Your task to perform on an android device: turn off notifications in google photos Image 0: 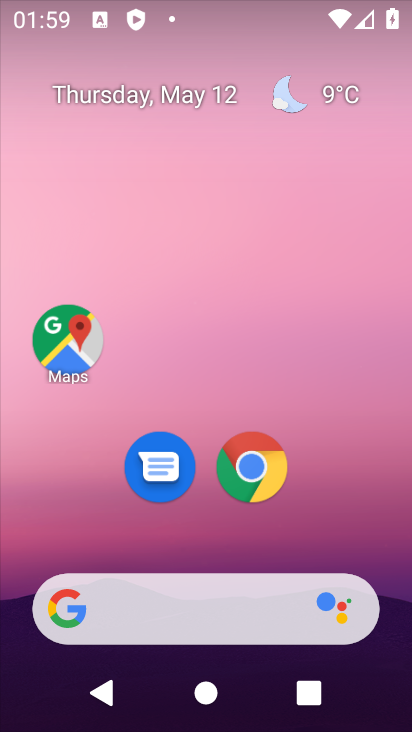
Step 0: drag from (316, 571) to (326, 189)
Your task to perform on an android device: turn off notifications in google photos Image 1: 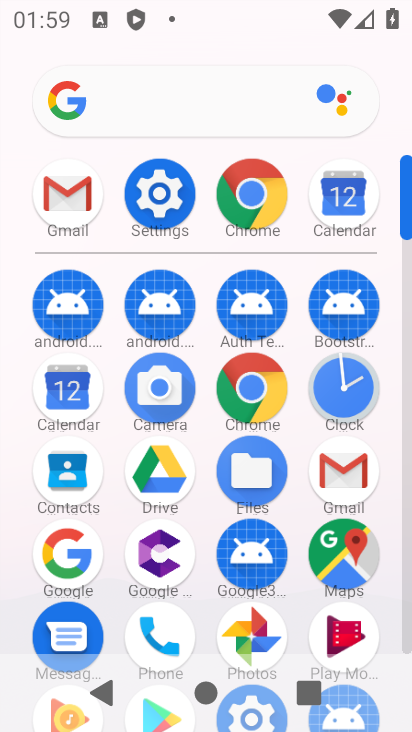
Step 1: click (250, 605)
Your task to perform on an android device: turn off notifications in google photos Image 2: 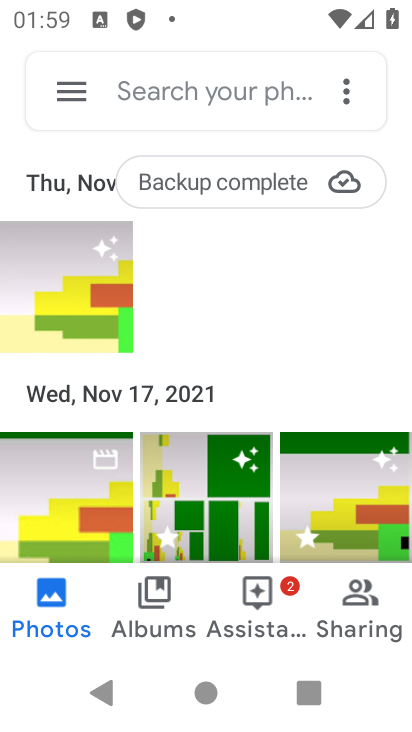
Step 2: click (68, 84)
Your task to perform on an android device: turn off notifications in google photos Image 3: 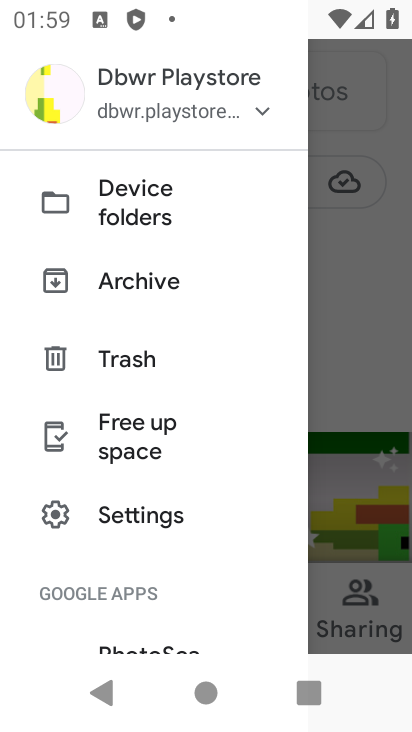
Step 3: click (148, 505)
Your task to perform on an android device: turn off notifications in google photos Image 4: 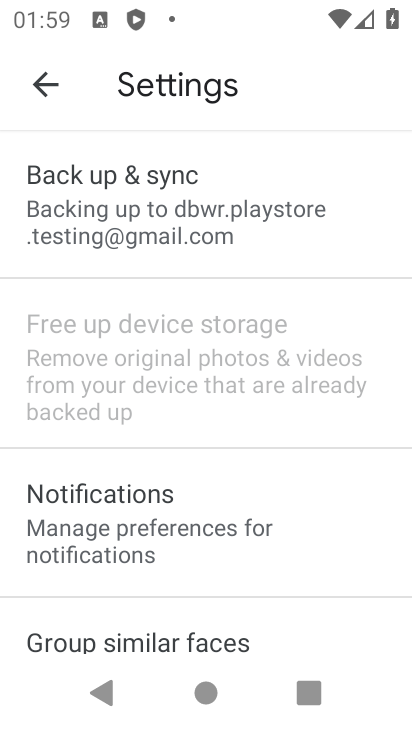
Step 4: click (156, 499)
Your task to perform on an android device: turn off notifications in google photos Image 5: 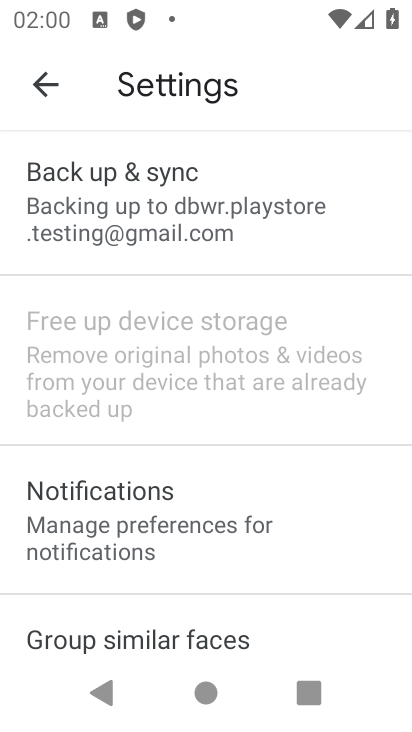
Step 5: click (156, 497)
Your task to perform on an android device: turn off notifications in google photos Image 6: 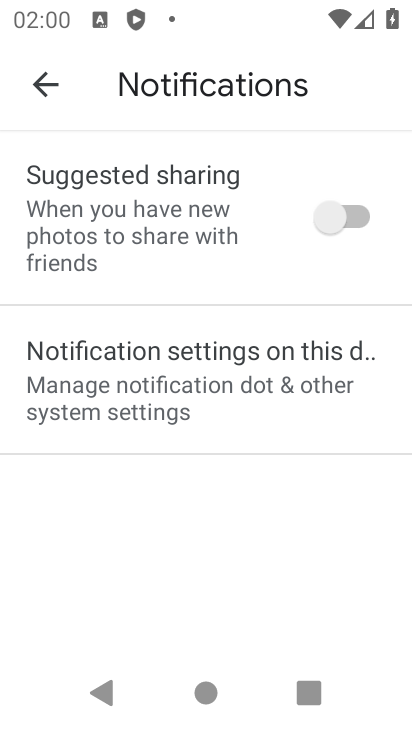
Step 6: click (276, 369)
Your task to perform on an android device: turn off notifications in google photos Image 7: 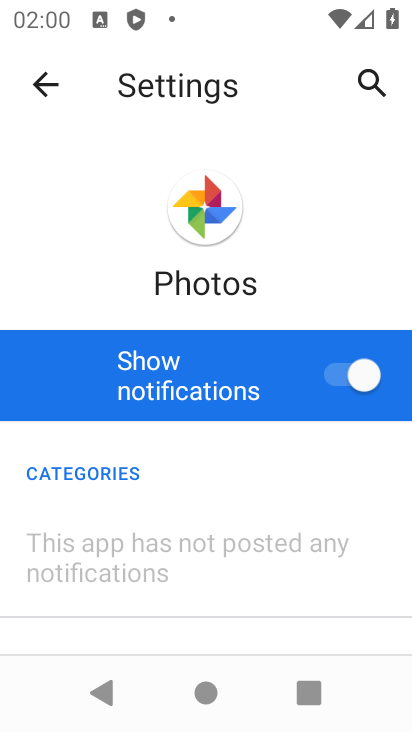
Step 7: click (325, 372)
Your task to perform on an android device: turn off notifications in google photos Image 8: 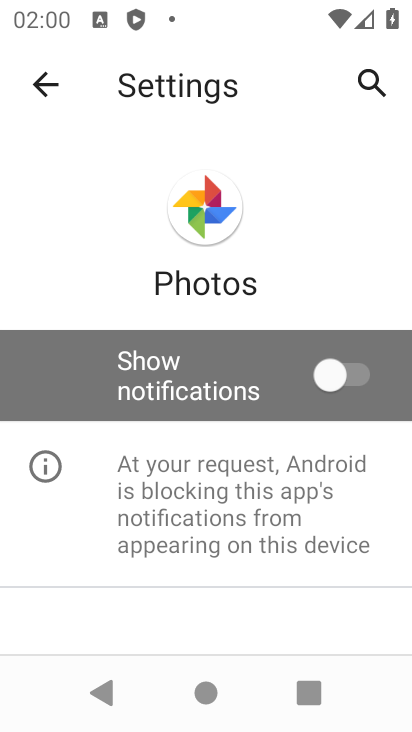
Step 8: task complete